Your task to perform on an android device: check battery use Image 0: 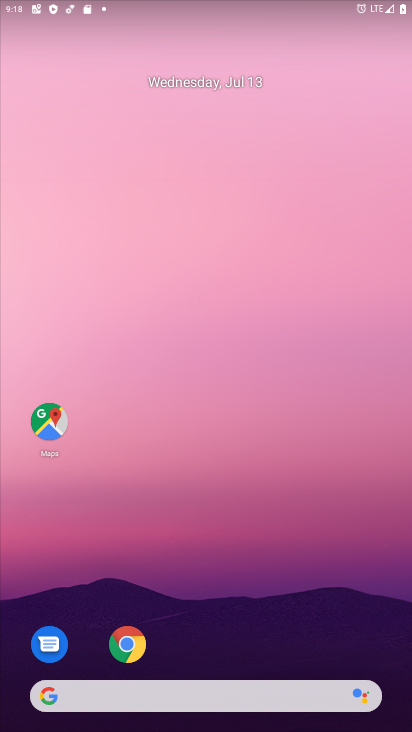
Step 0: drag from (219, 730) to (206, 84)
Your task to perform on an android device: check battery use Image 1: 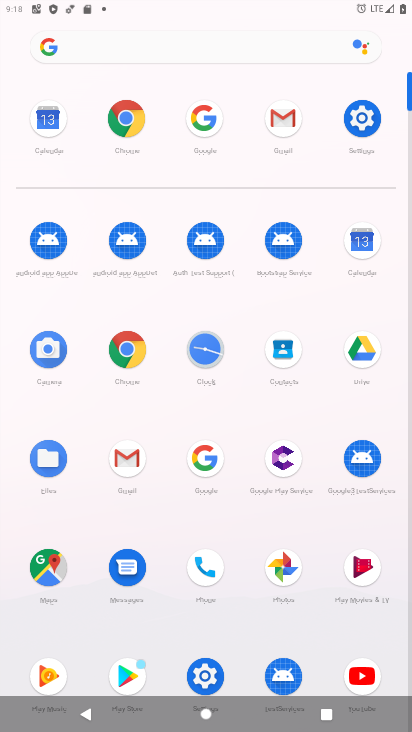
Step 1: click (360, 119)
Your task to perform on an android device: check battery use Image 2: 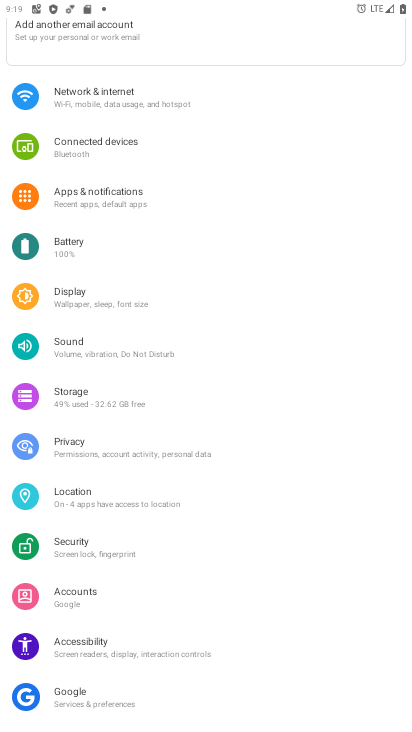
Step 2: click (71, 243)
Your task to perform on an android device: check battery use Image 3: 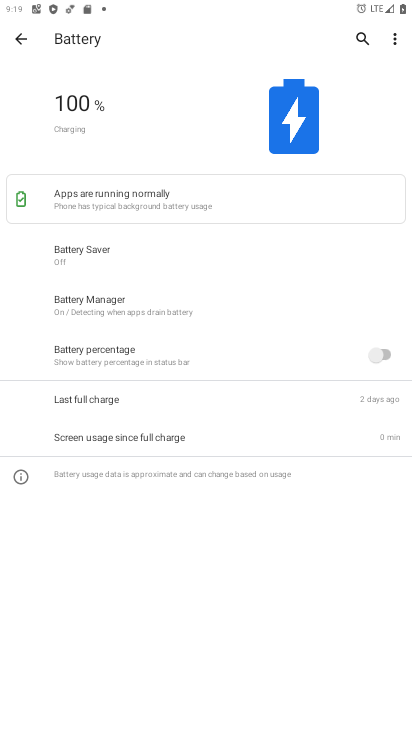
Step 3: click (394, 42)
Your task to perform on an android device: check battery use Image 4: 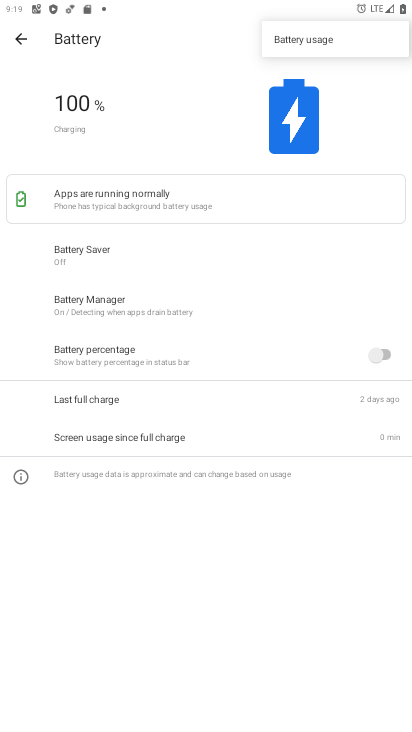
Step 4: click (318, 39)
Your task to perform on an android device: check battery use Image 5: 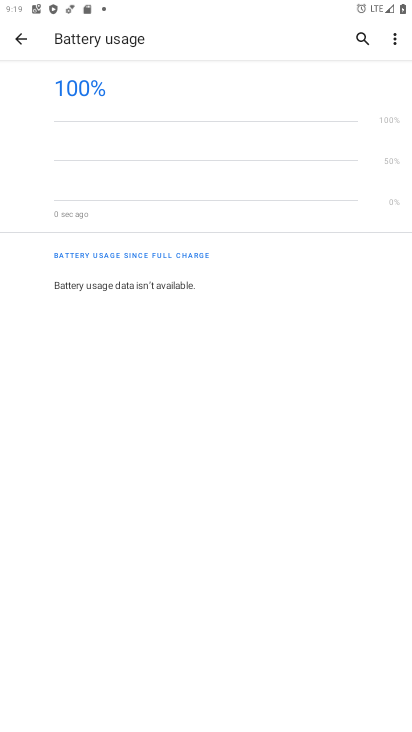
Step 5: task complete